Your task to perform on an android device: toggle javascript in the chrome app Image 0: 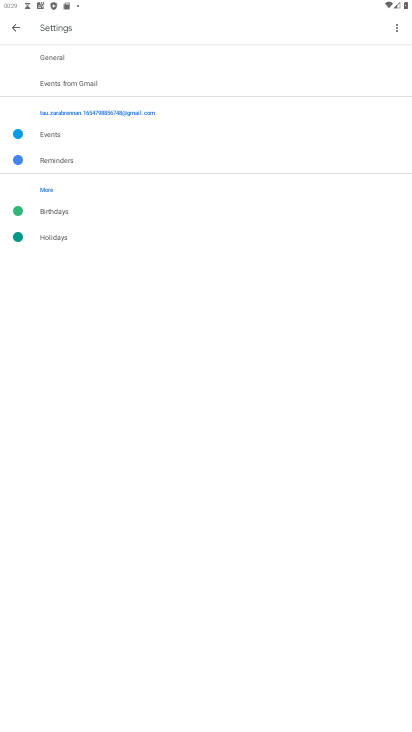
Step 0: press home button
Your task to perform on an android device: toggle javascript in the chrome app Image 1: 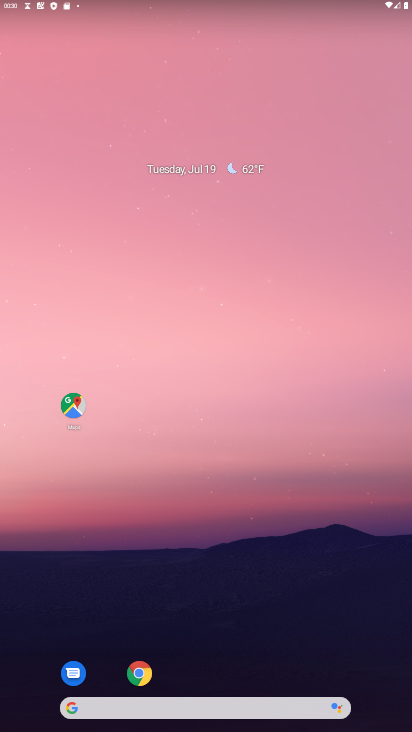
Step 1: drag from (340, 672) to (298, 256)
Your task to perform on an android device: toggle javascript in the chrome app Image 2: 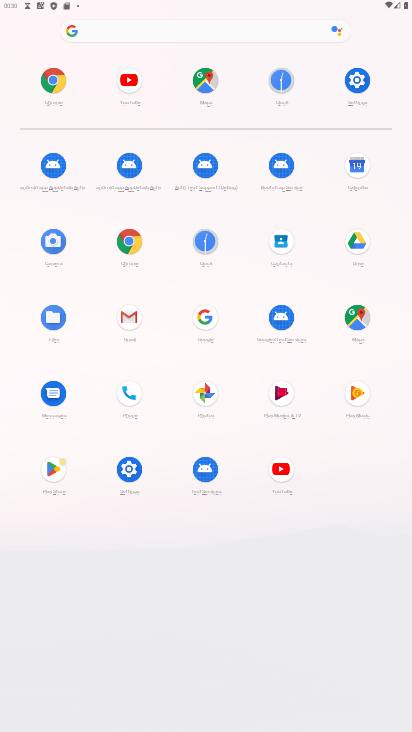
Step 2: click (55, 81)
Your task to perform on an android device: toggle javascript in the chrome app Image 3: 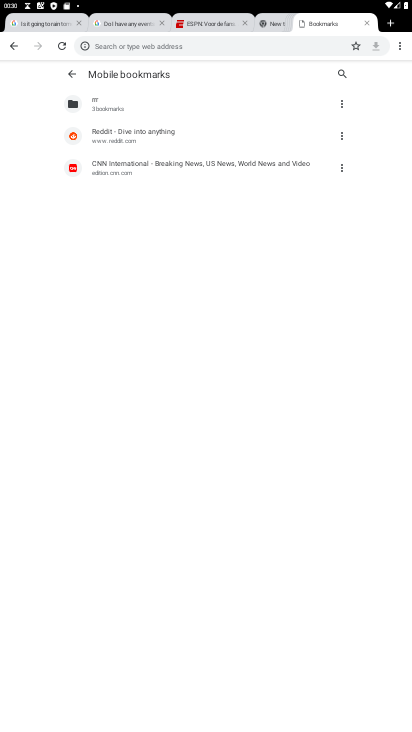
Step 3: click (403, 48)
Your task to perform on an android device: toggle javascript in the chrome app Image 4: 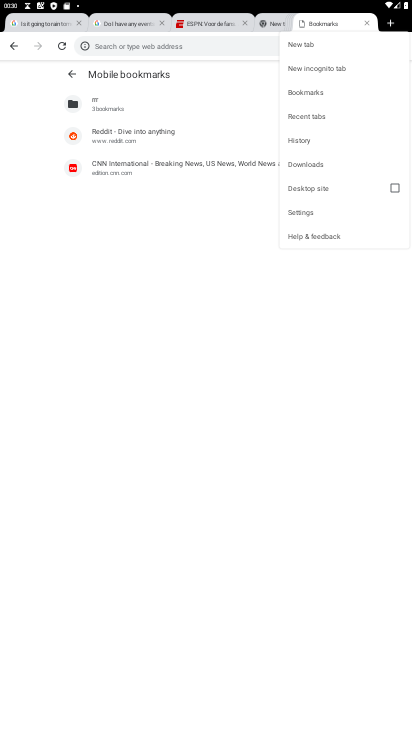
Step 4: click (306, 211)
Your task to perform on an android device: toggle javascript in the chrome app Image 5: 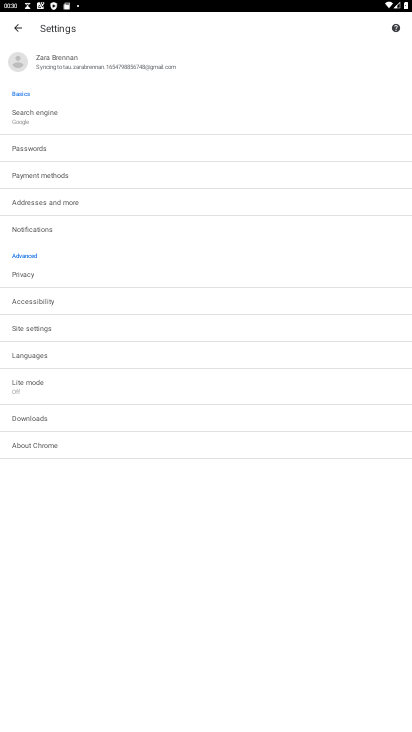
Step 5: click (57, 329)
Your task to perform on an android device: toggle javascript in the chrome app Image 6: 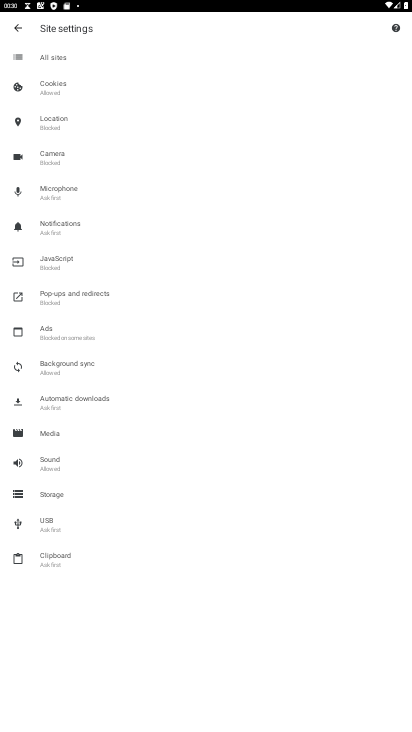
Step 6: click (72, 267)
Your task to perform on an android device: toggle javascript in the chrome app Image 7: 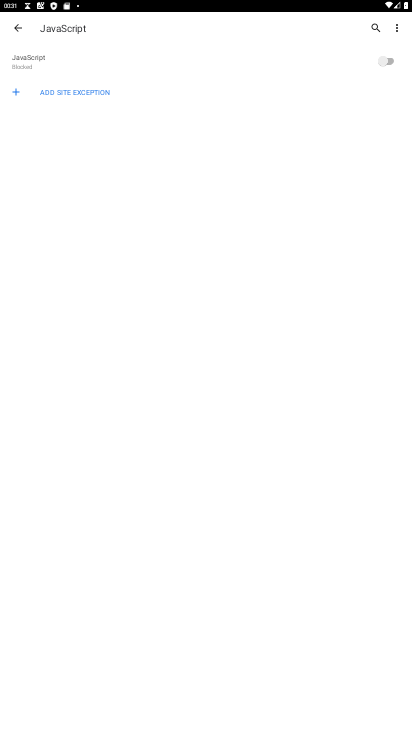
Step 7: task complete